Your task to perform on an android device: Go to internet settings Image 0: 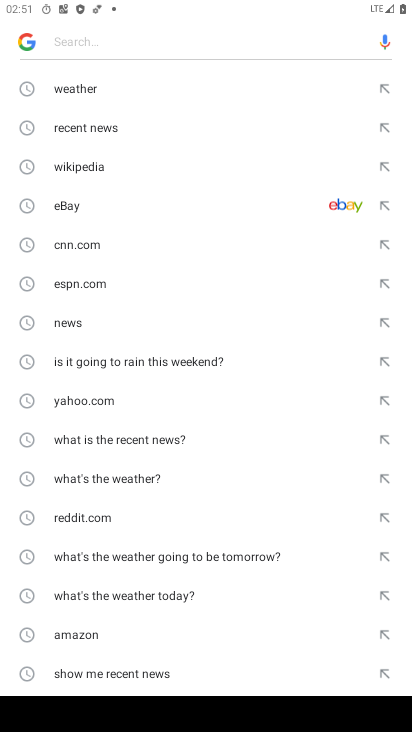
Step 0: press home button
Your task to perform on an android device: Go to internet settings Image 1: 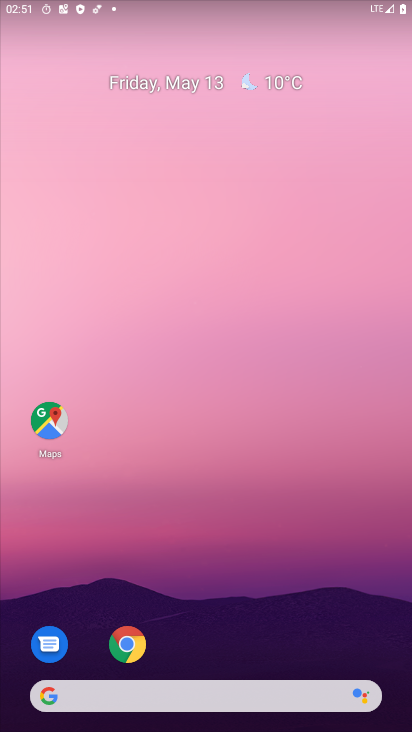
Step 1: drag from (227, 676) to (405, 81)
Your task to perform on an android device: Go to internet settings Image 2: 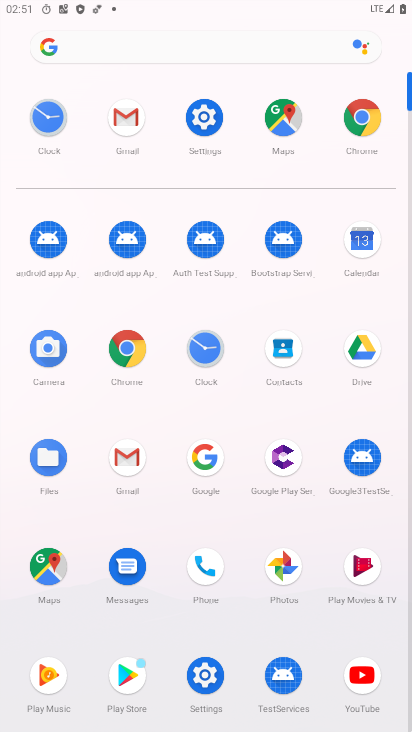
Step 2: click (199, 119)
Your task to perform on an android device: Go to internet settings Image 3: 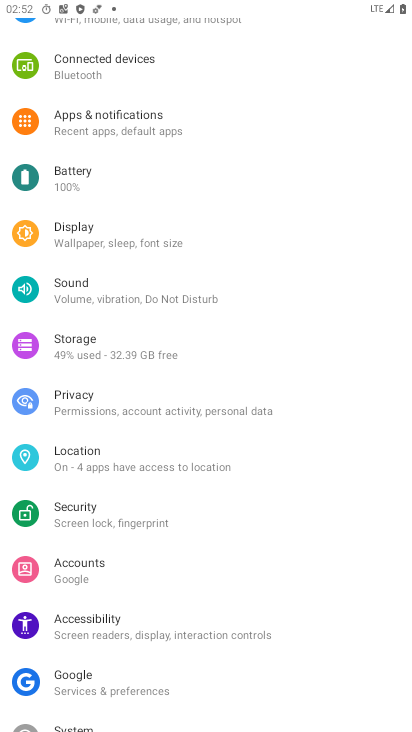
Step 3: drag from (205, 146) to (205, 555)
Your task to perform on an android device: Go to internet settings Image 4: 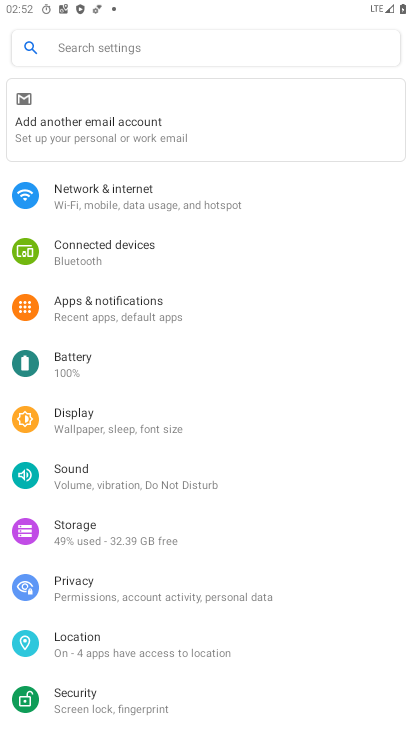
Step 4: click (167, 206)
Your task to perform on an android device: Go to internet settings Image 5: 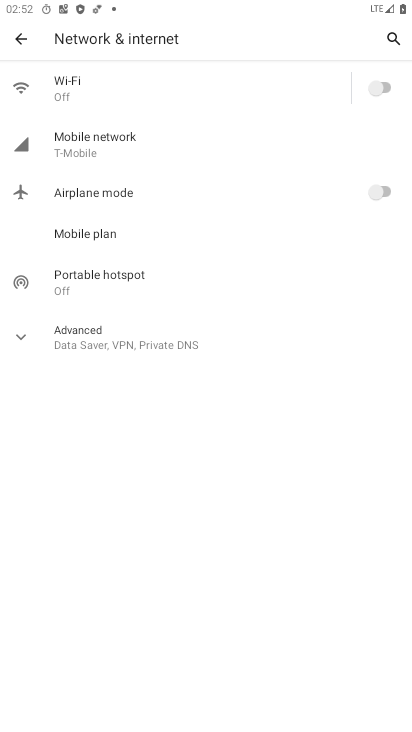
Step 5: click (113, 147)
Your task to perform on an android device: Go to internet settings Image 6: 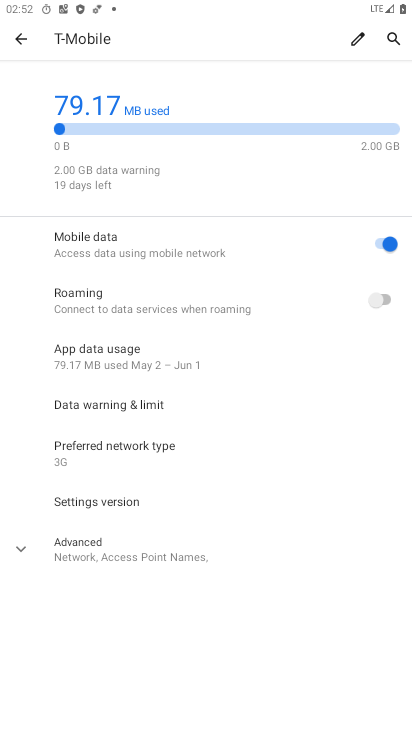
Step 6: task complete